Your task to perform on an android device: When is my next appointment? Image 0: 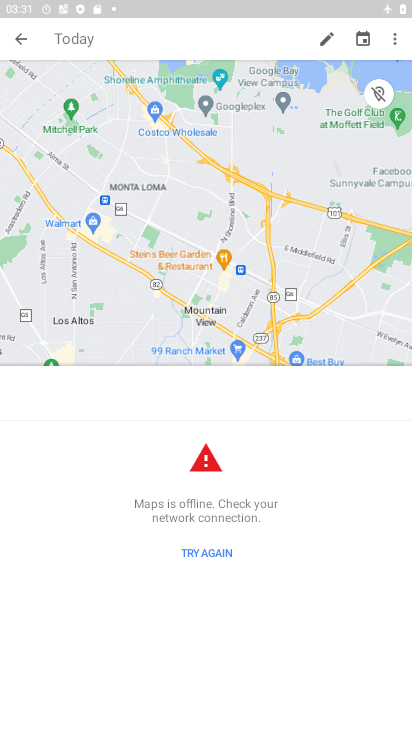
Step 0: press home button
Your task to perform on an android device: When is my next appointment? Image 1: 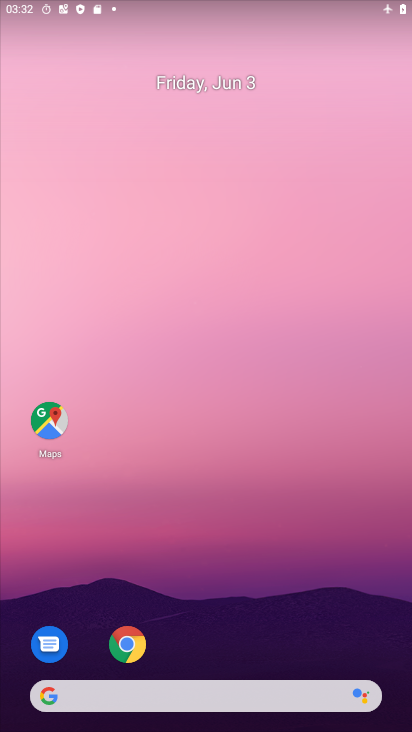
Step 1: drag from (226, 622) to (292, 160)
Your task to perform on an android device: When is my next appointment? Image 2: 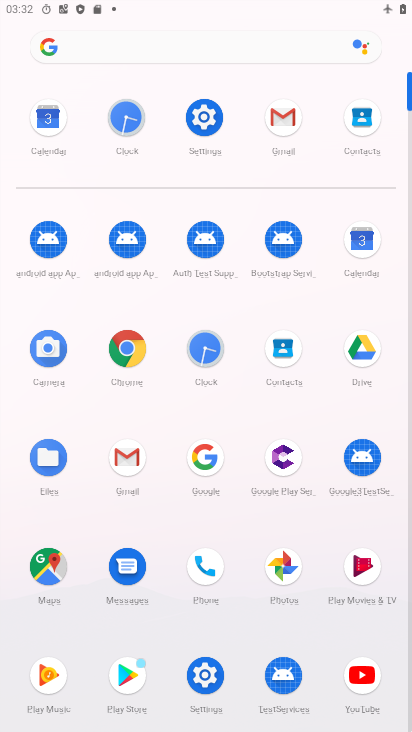
Step 2: click (352, 242)
Your task to perform on an android device: When is my next appointment? Image 3: 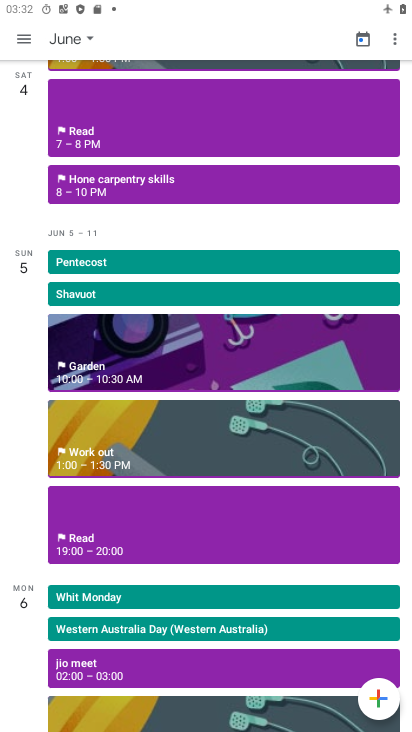
Step 3: task complete